Your task to perform on an android device: remove spam from my inbox in the gmail app Image 0: 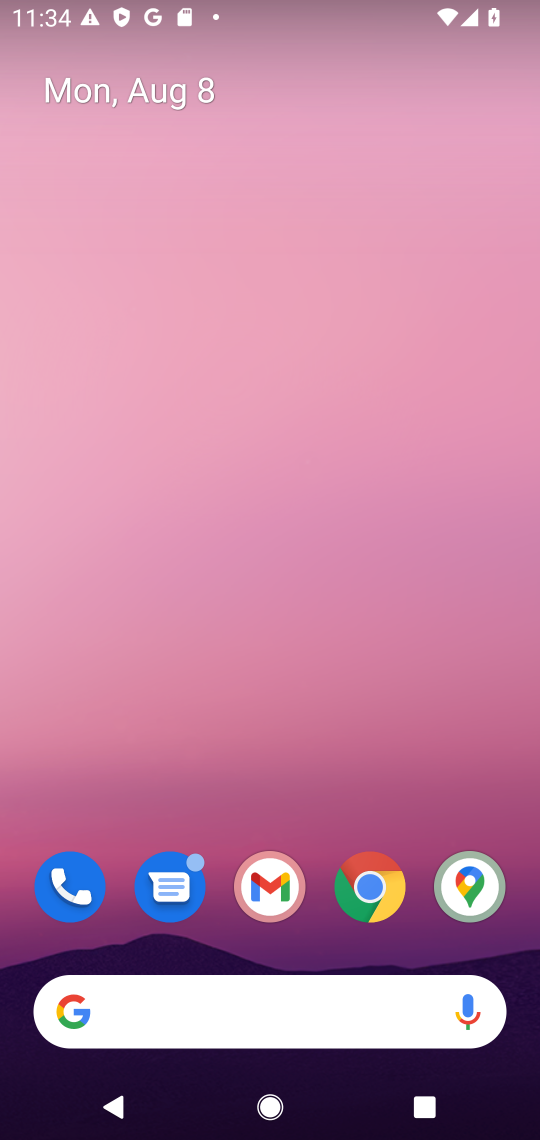
Step 0: click (273, 874)
Your task to perform on an android device: remove spam from my inbox in the gmail app Image 1: 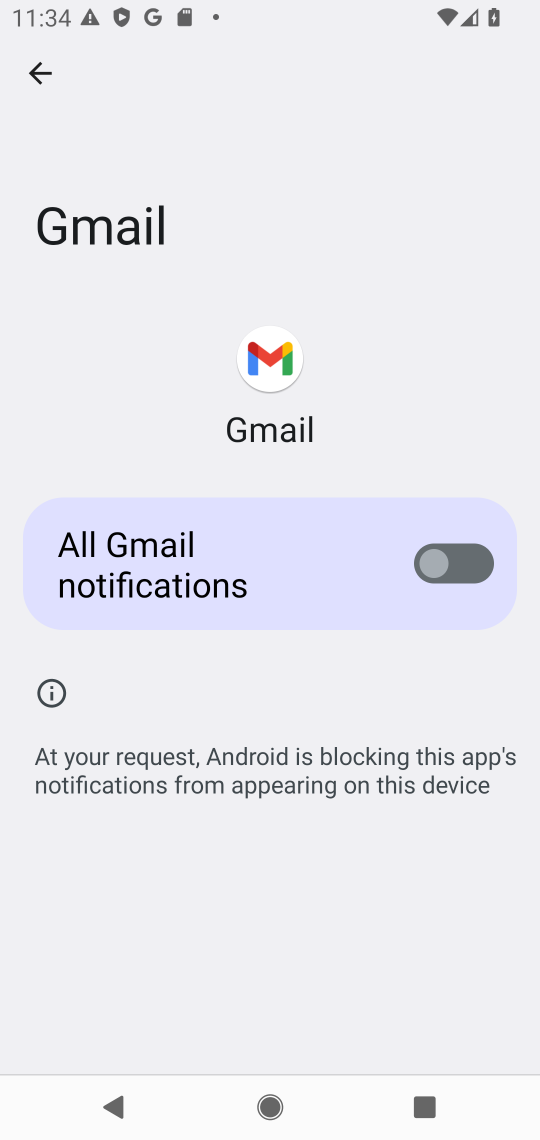
Step 1: click (36, 65)
Your task to perform on an android device: remove spam from my inbox in the gmail app Image 2: 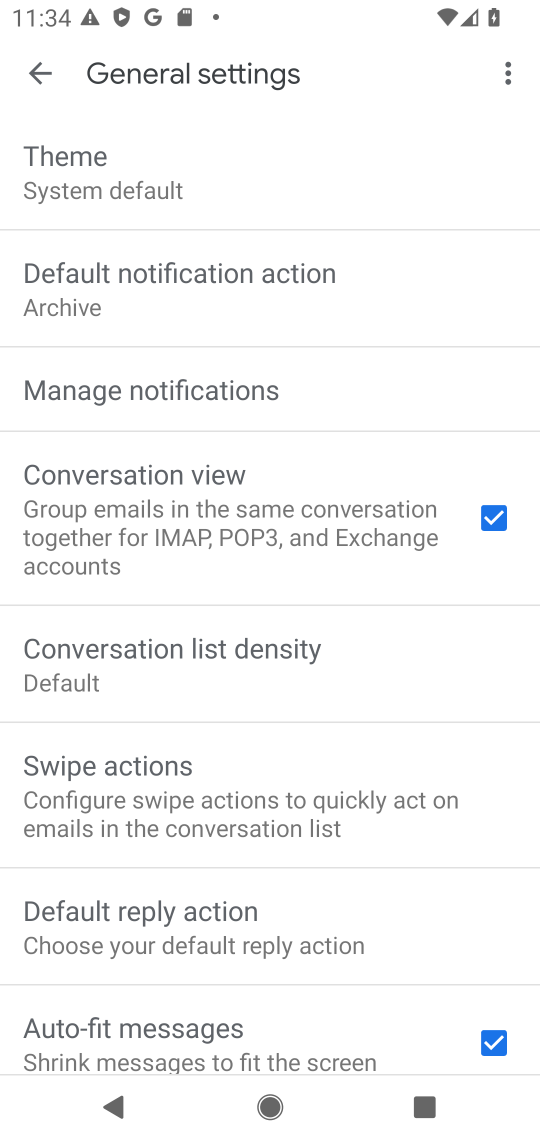
Step 2: click (33, 69)
Your task to perform on an android device: remove spam from my inbox in the gmail app Image 3: 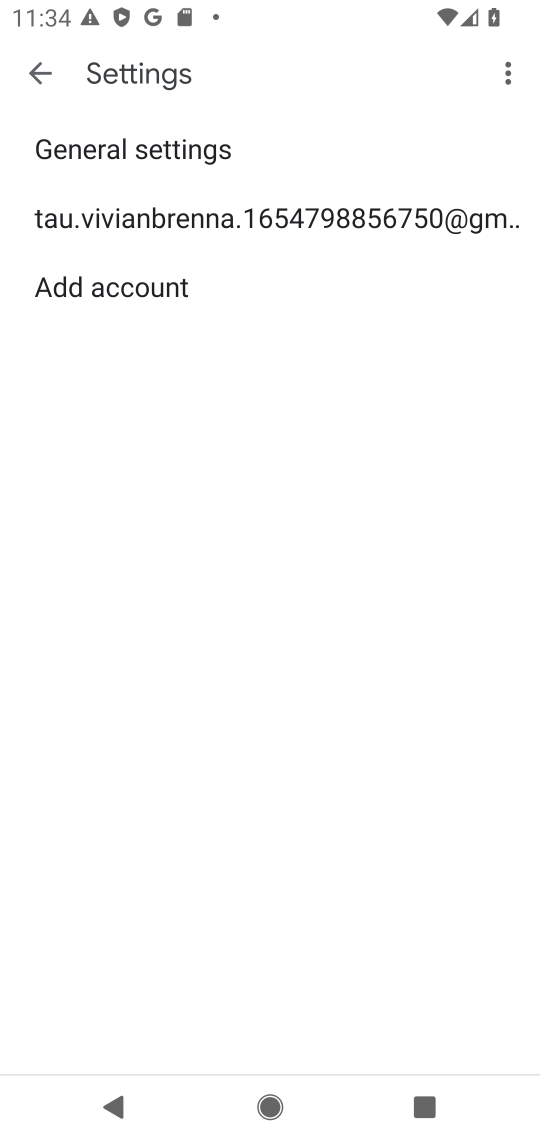
Step 3: click (42, 63)
Your task to perform on an android device: remove spam from my inbox in the gmail app Image 4: 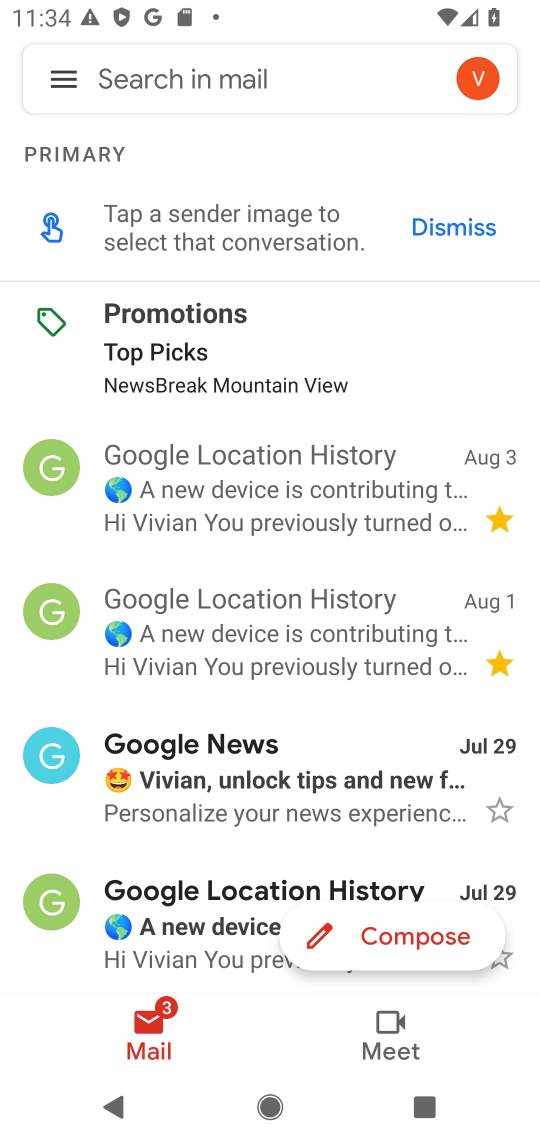
Step 4: click (64, 78)
Your task to perform on an android device: remove spam from my inbox in the gmail app Image 5: 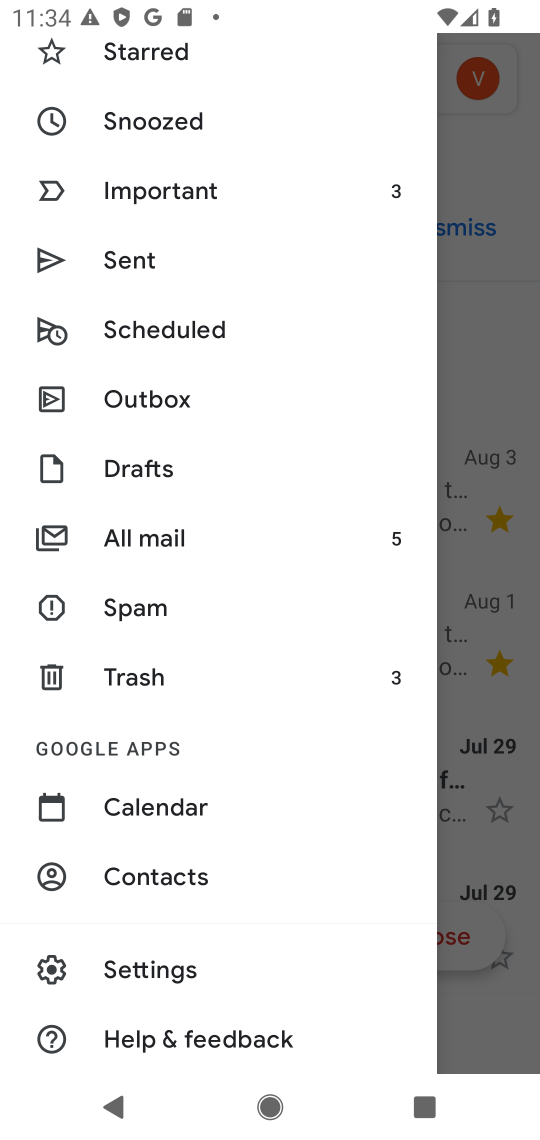
Step 5: click (148, 595)
Your task to perform on an android device: remove spam from my inbox in the gmail app Image 6: 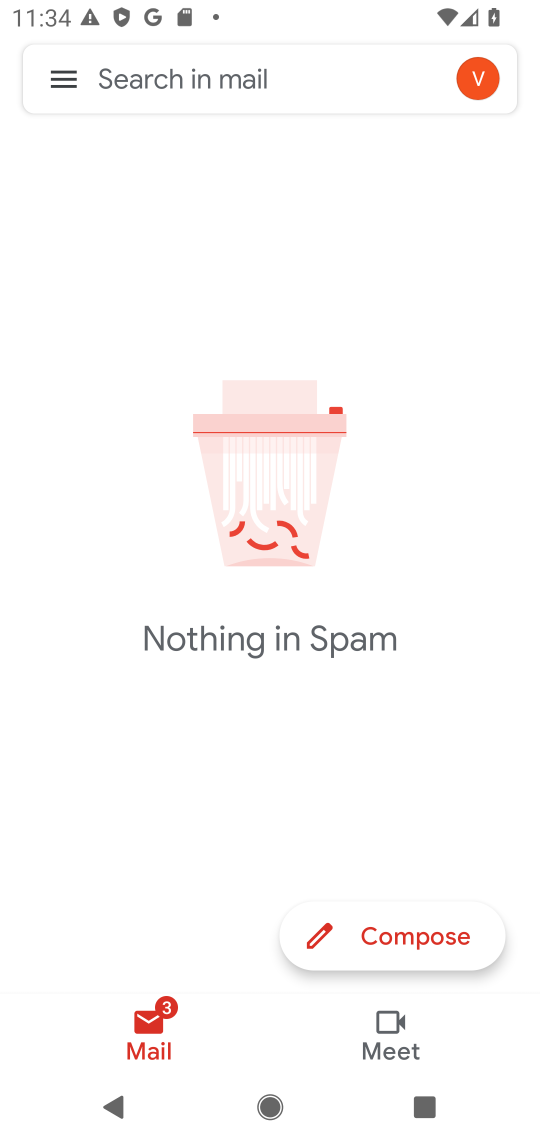
Step 6: task complete